Your task to perform on an android device: Go to CNN.com Image 0: 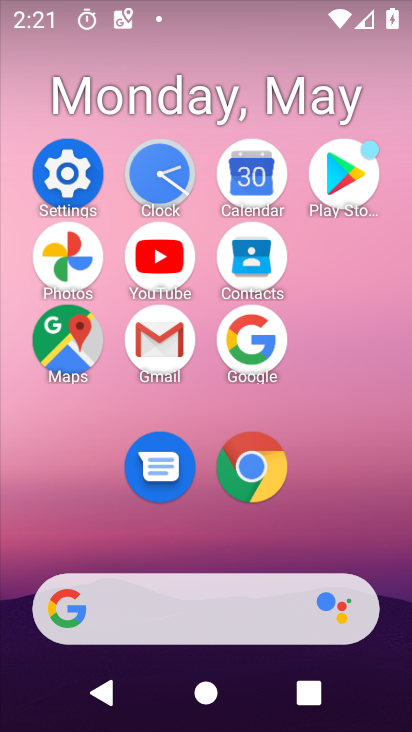
Step 0: click (293, 463)
Your task to perform on an android device: Go to CNN.com Image 1: 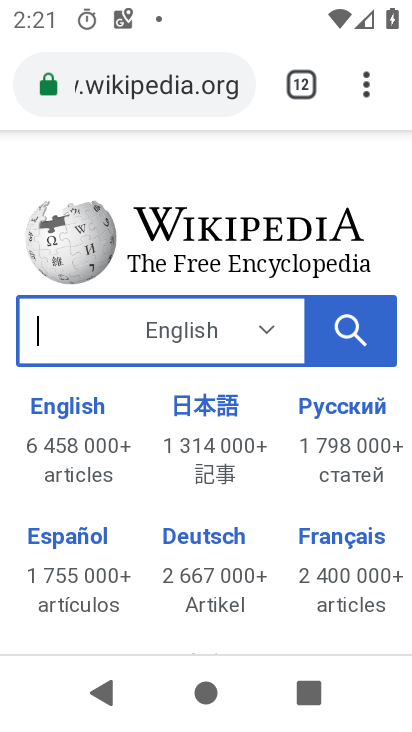
Step 1: click (292, 92)
Your task to perform on an android device: Go to CNN.com Image 2: 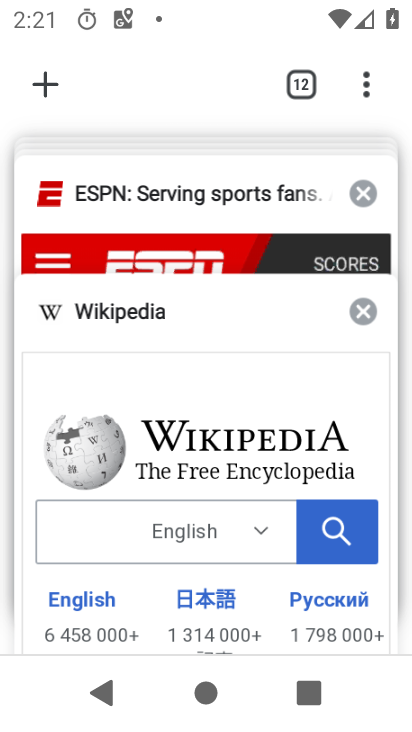
Step 2: drag from (247, 235) to (237, 537)
Your task to perform on an android device: Go to CNN.com Image 3: 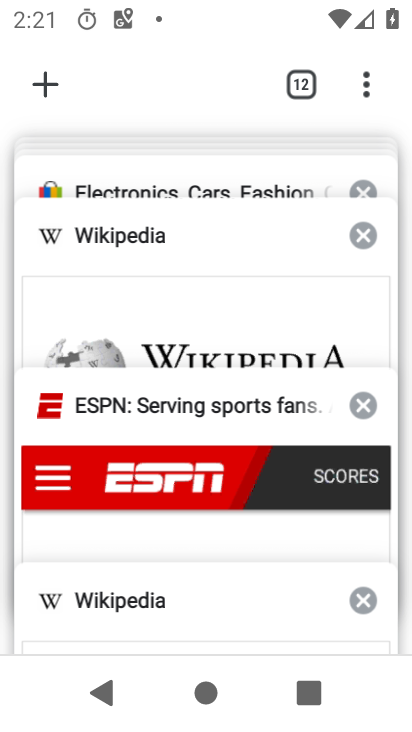
Step 3: drag from (222, 271) to (271, 524)
Your task to perform on an android device: Go to CNN.com Image 4: 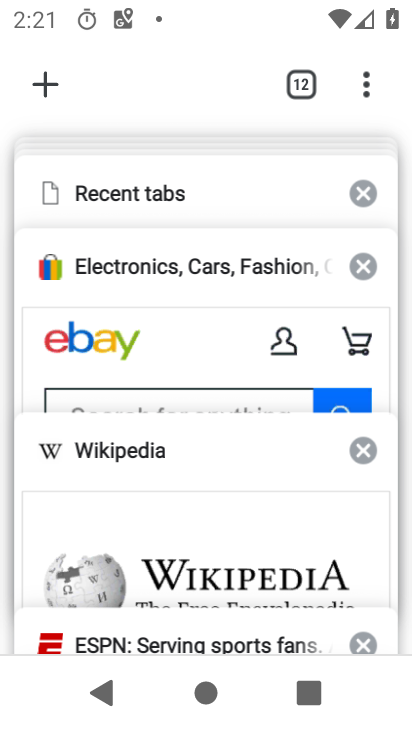
Step 4: drag from (169, 233) to (241, 540)
Your task to perform on an android device: Go to CNN.com Image 5: 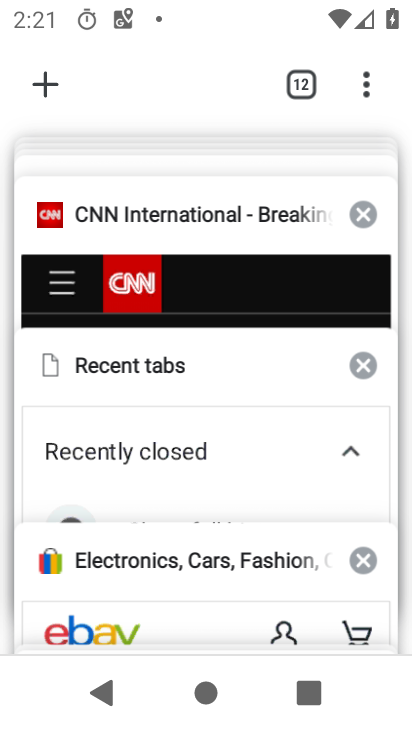
Step 5: click (189, 216)
Your task to perform on an android device: Go to CNN.com Image 6: 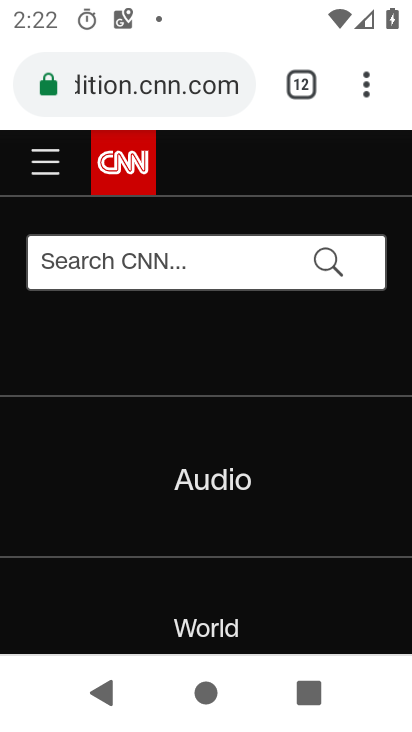
Step 6: task complete